Your task to perform on an android device: turn off airplane mode Image 0: 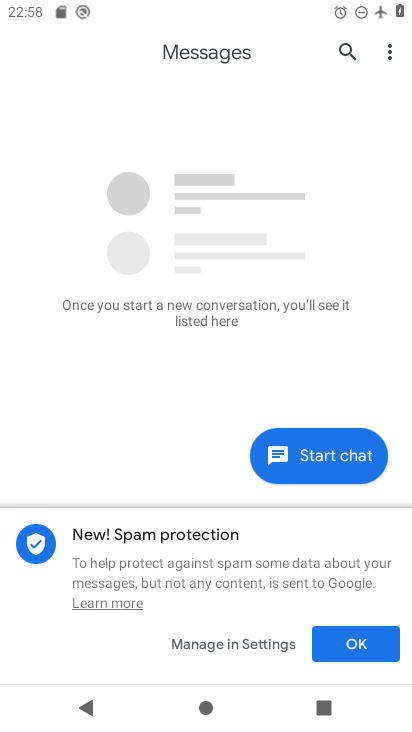
Step 0: press home button
Your task to perform on an android device: turn off airplane mode Image 1: 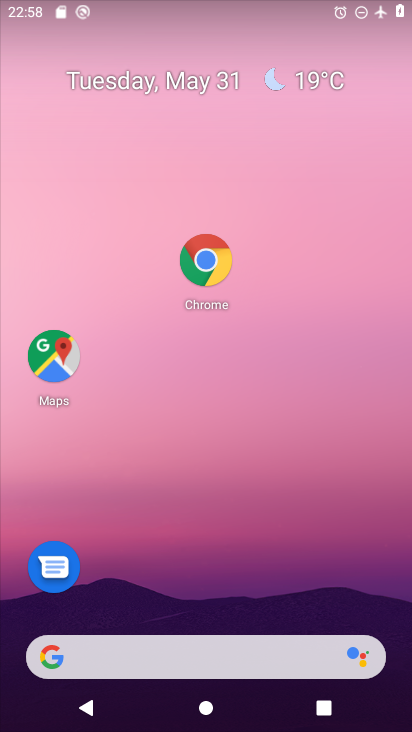
Step 1: drag from (156, 574) to (156, 308)
Your task to perform on an android device: turn off airplane mode Image 2: 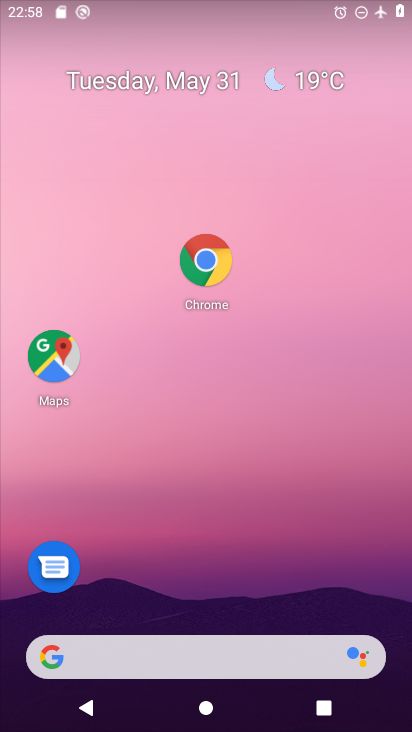
Step 2: drag from (277, 622) to (277, 217)
Your task to perform on an android device: turn off airplane mode Image 3: 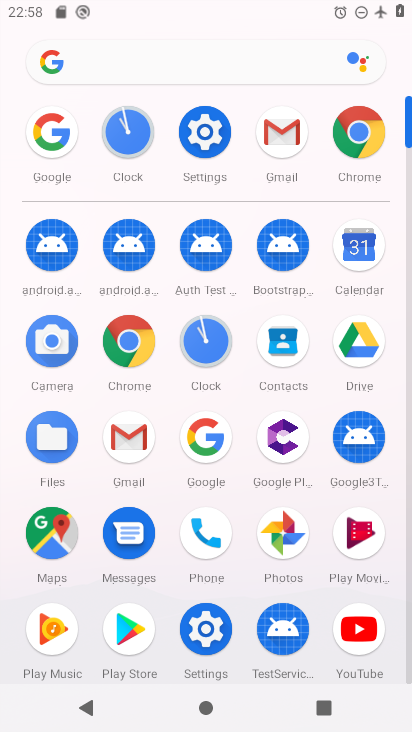
Step 3: click (204, 135)
Your task to perform on an android device: turn off airplane mode Image 4: 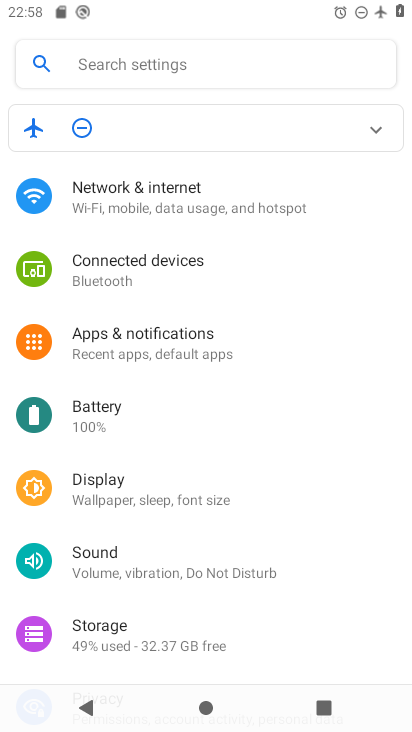
Step 4: click (155, 215)
Your task to perform on an android device: turn off airplane mode Image 5: 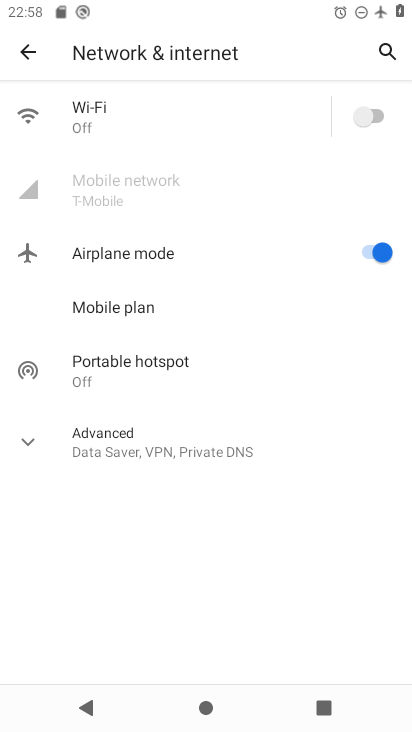
Step 5: click (381, 254)
Your task to perform on an android device: turn off airplane mode Image 6: 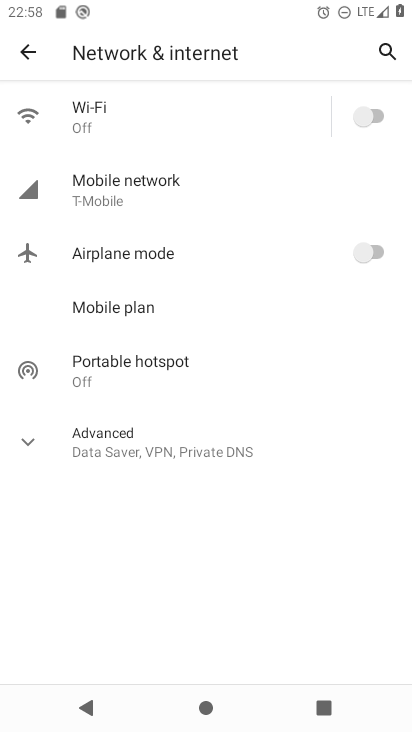
Step 6: task complete